Your task to perform on an android device: Open location settings Image 0: 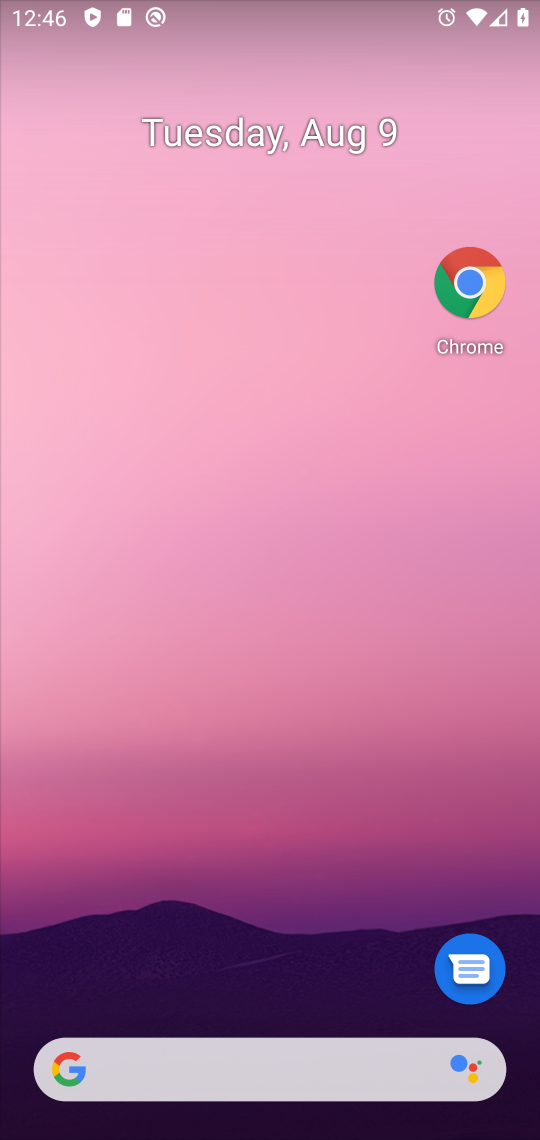
Step 0: click (354, 11)
Your task to perform on an android device: Open location settings Image 1: 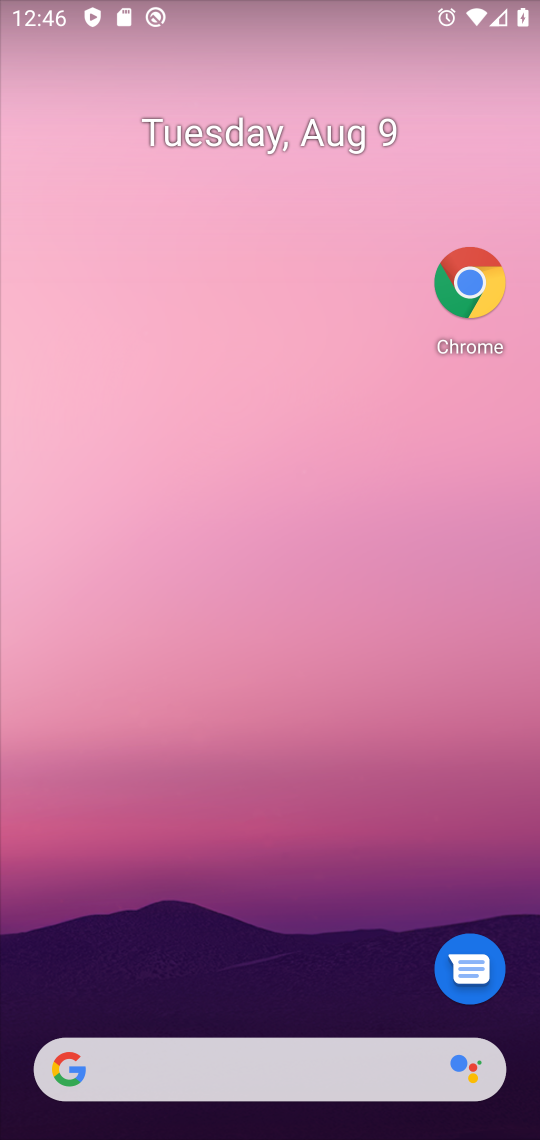
Step 1: drag from (309, 757) to (218, 26)
Your task to perform on an android device: Open location settings Image 2: 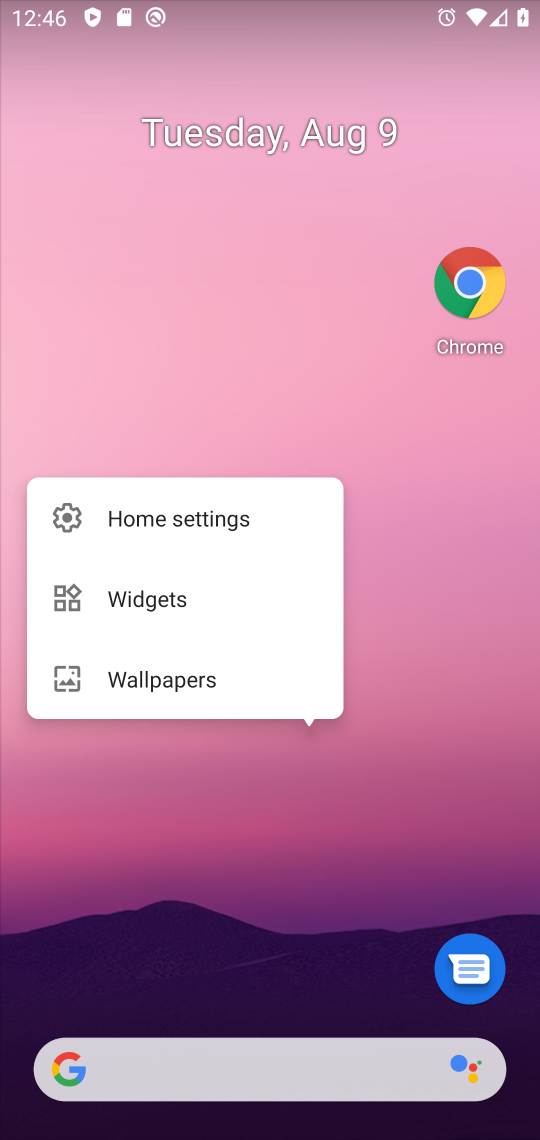
Step 2: drag from (318, 424) to (431, 112)
Your task to perform on an android device: Open location settings Image 3: 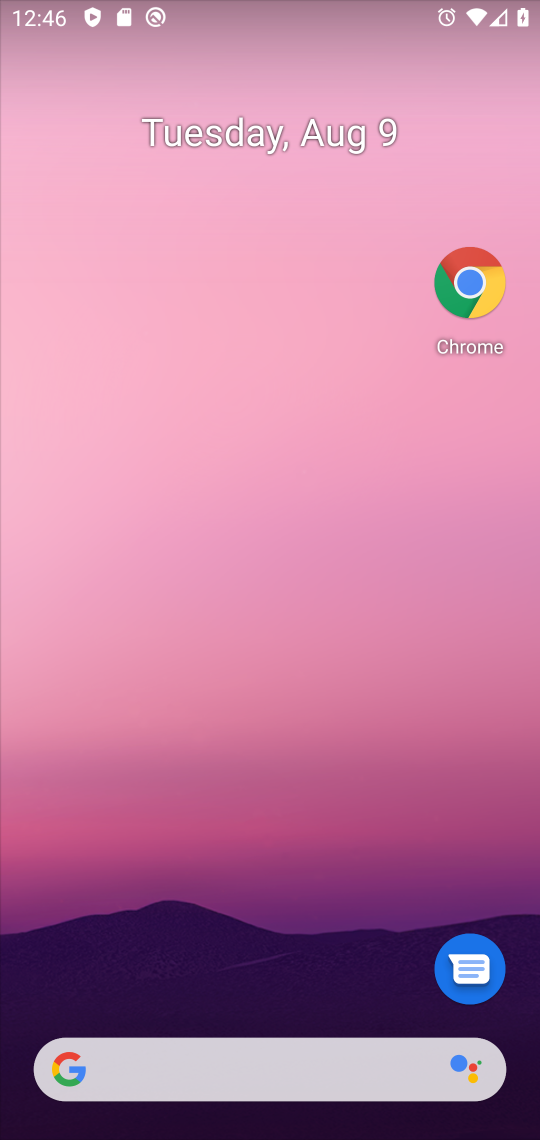
Step 3: click (362, 327)
Your task to perform on an android device: Open location settings Image 4: 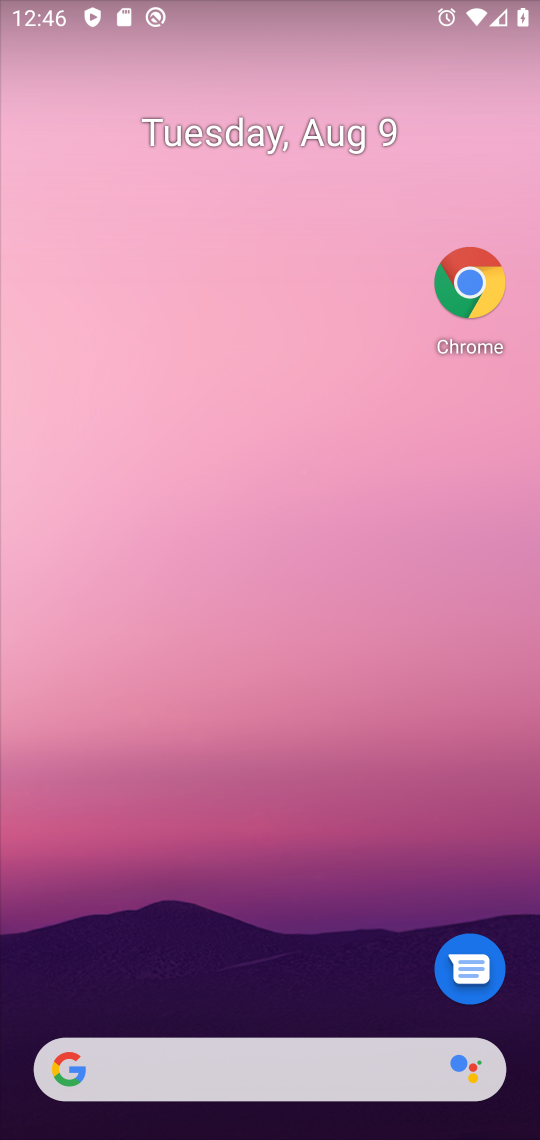
Step 4: drag from (264, 961) to (362, 85)
Your task to perform on an android device: Open location settings Image 5: 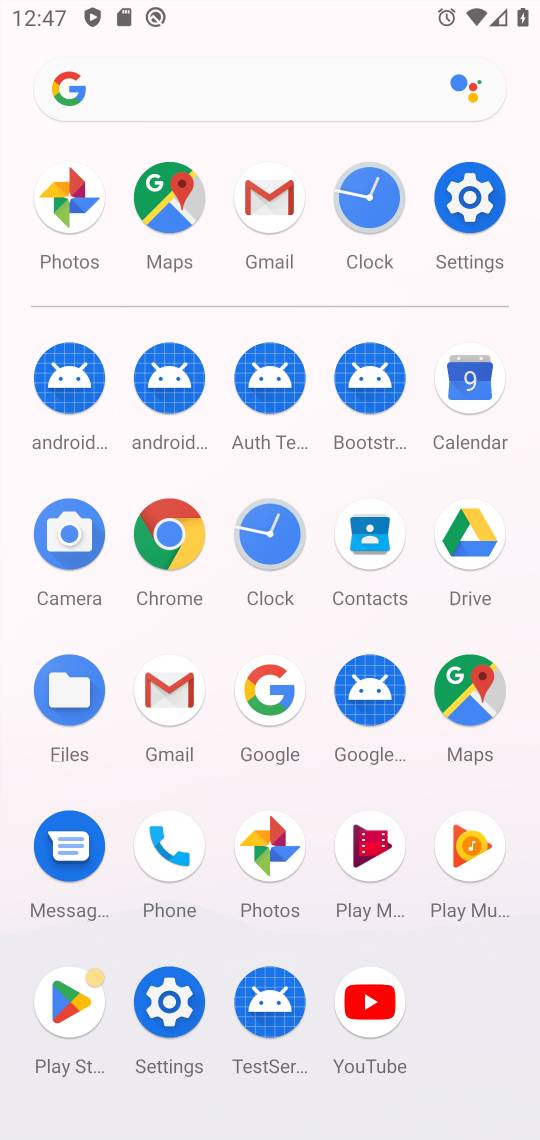
Step 5: click (465, 199)
Your task to perform on an android device: Open location settings Image 6: 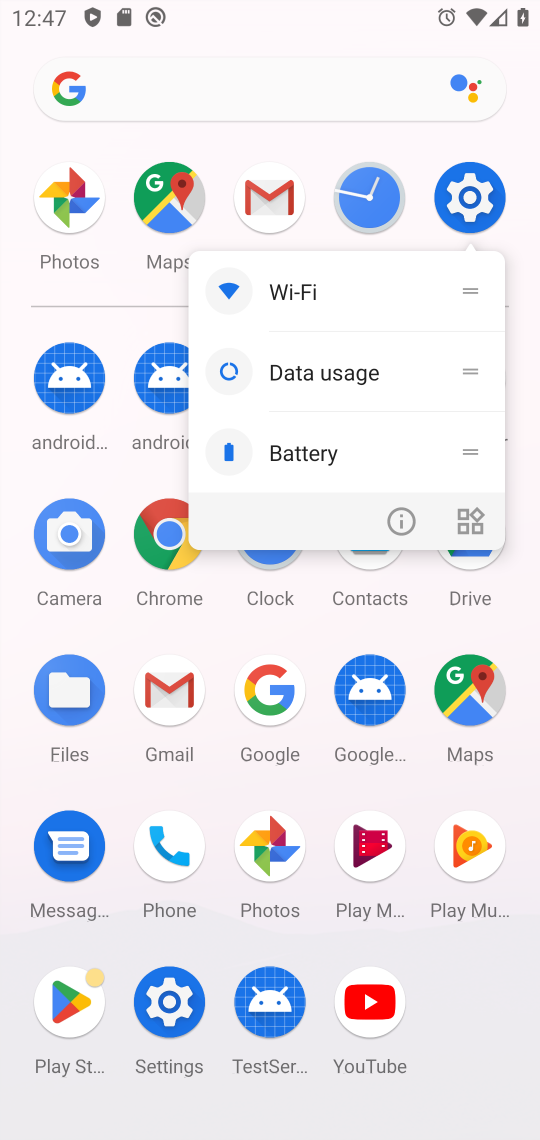
Step 6: click (402, 523)
Your task to perform on an android device: Open location settings Image 7: 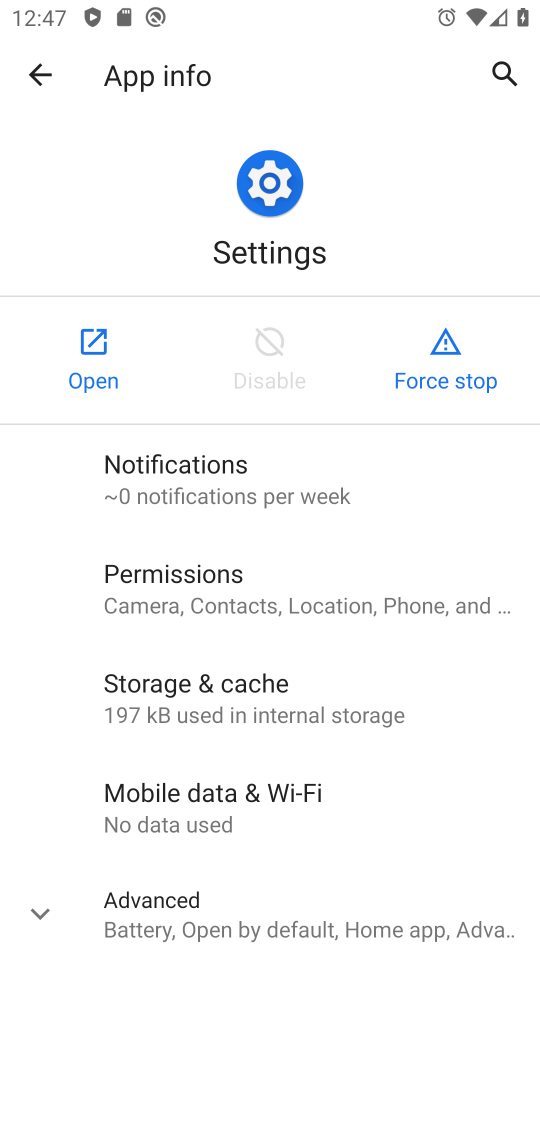
Step 7: click (90, 383)
Your task to perform on an android device: Open location settings Image 8: 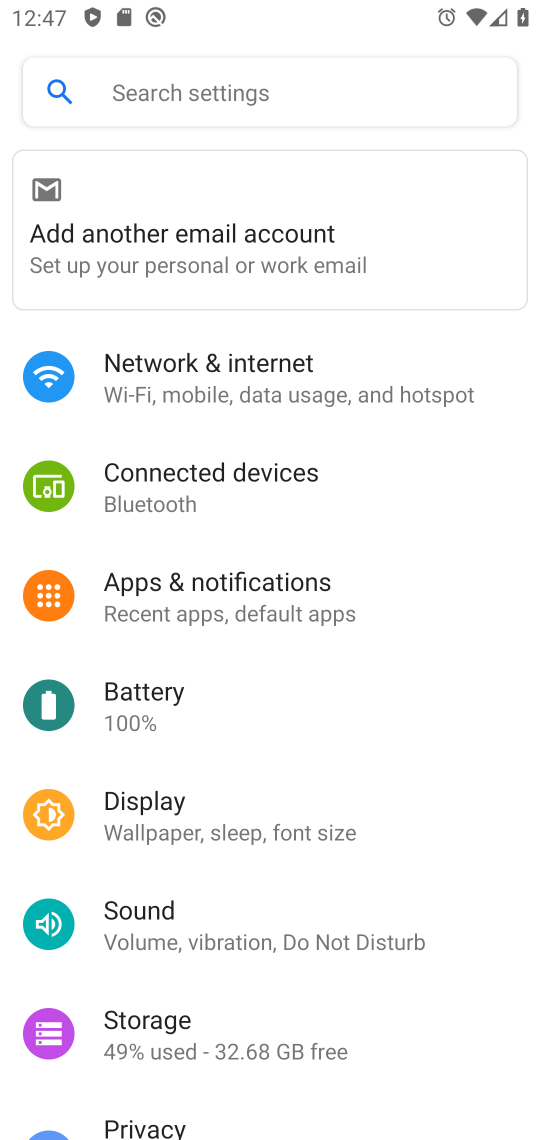
Step 8: drag from (233, 578) to (288, 236)
Your task to perform on an android device: Open location settings Image 9: 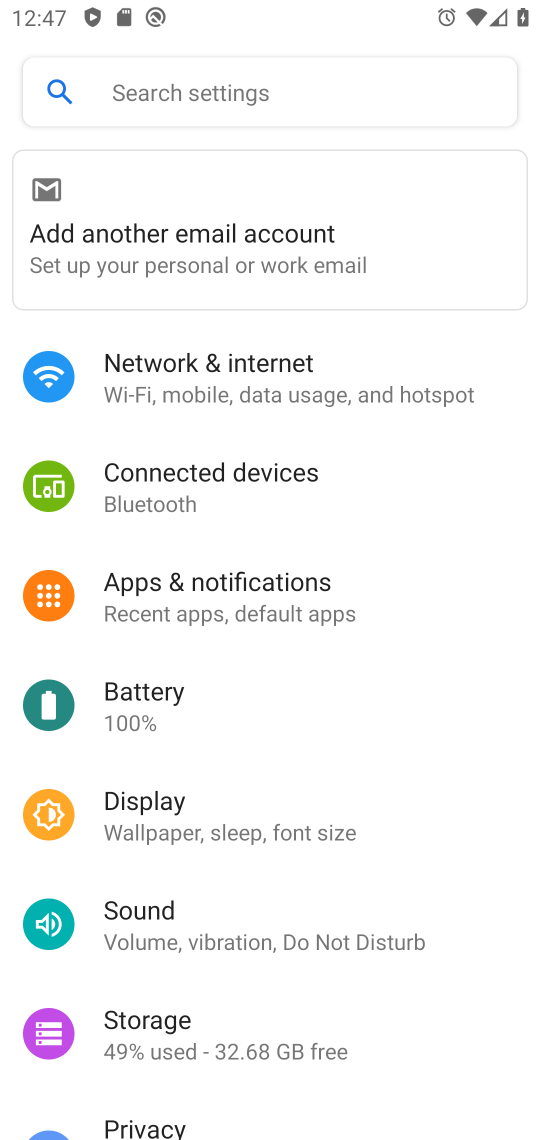
Step 9: drag from (195, 939) to (279, 374)
Your task to perform on an android device: Open location settings Image 10: 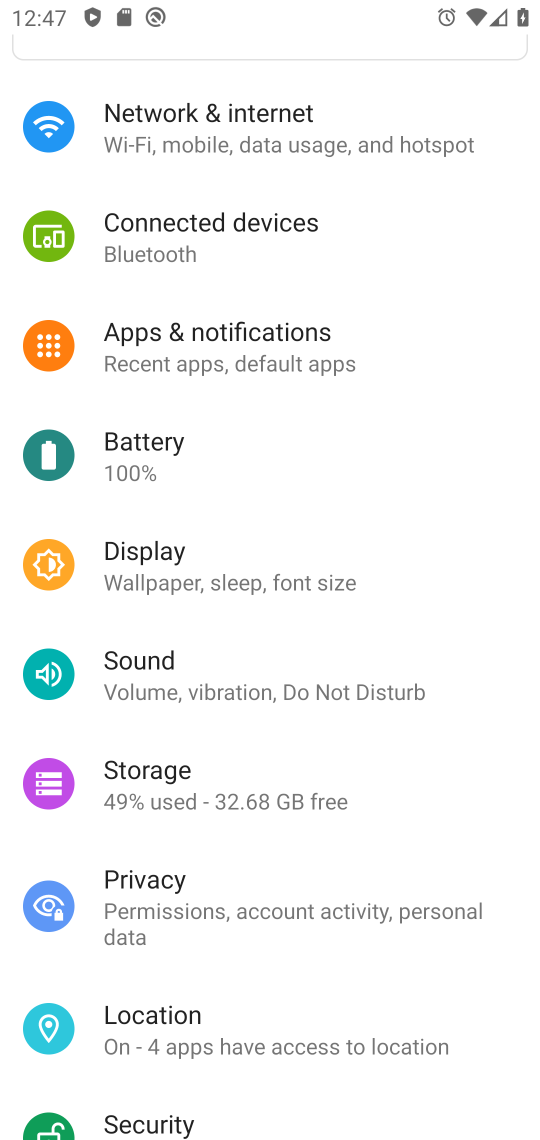
Step 10: click (215, 1019)
Your task to perform on an android device: Open location settings Image 11: 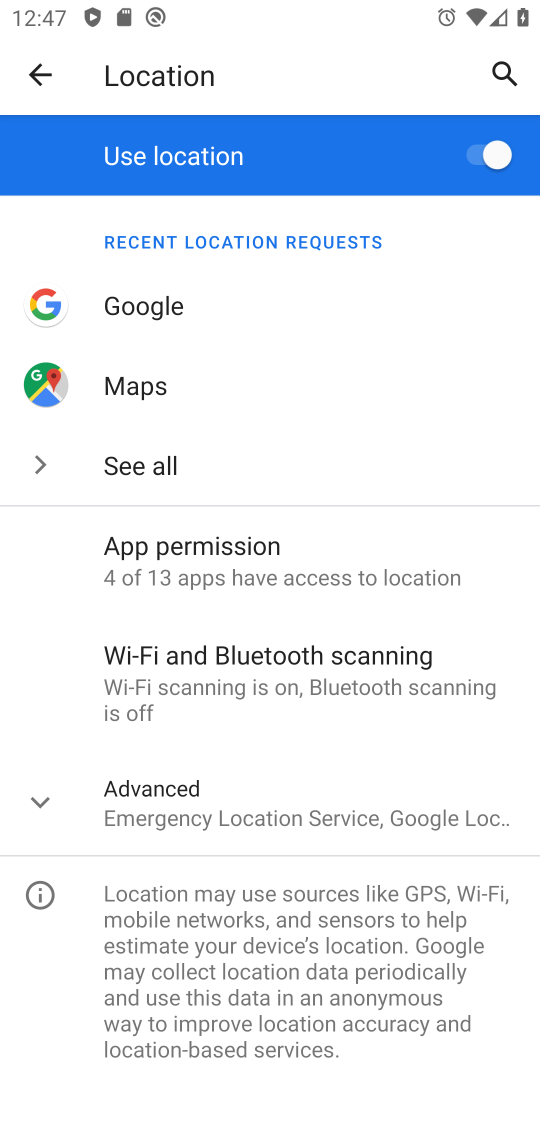
Step 11: click (158, 825)
Your task to perform on an android device: Open location settings Image 12: 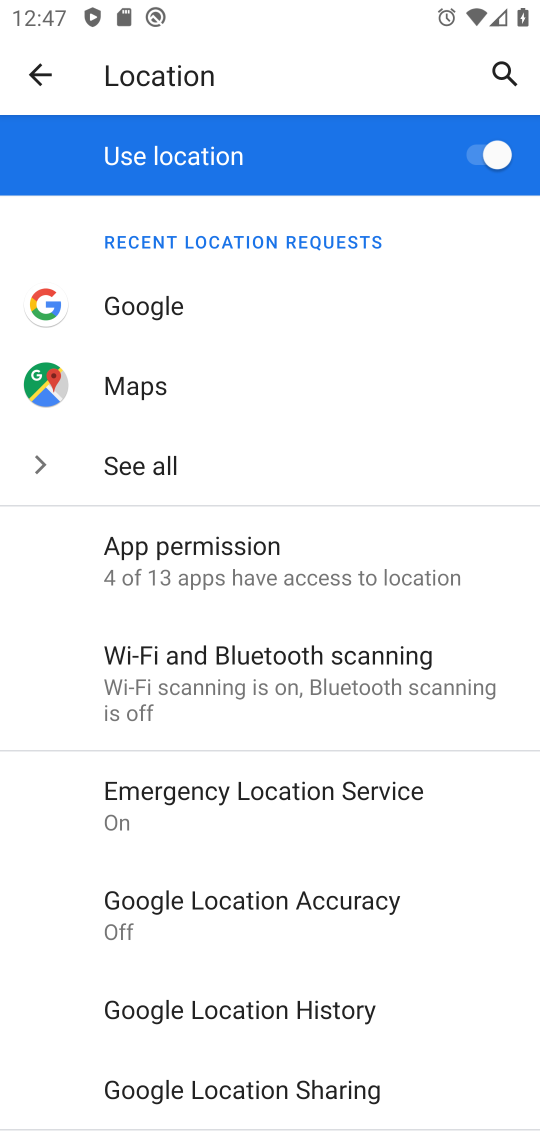
Step 12: task complete